Your task to perform on an android device: Open Google Chrome and click the shortcut for Amazon.com Image 0: 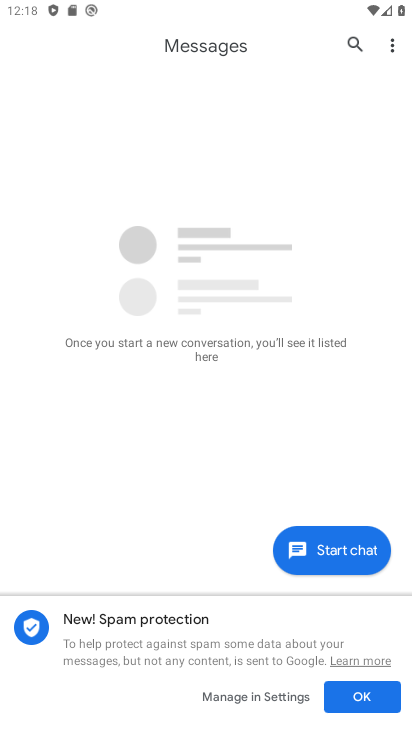
Step 0: press home button
Your task to perform on an android device: Open Google Chrome and click the shortcut for Amazon.com Image 1: 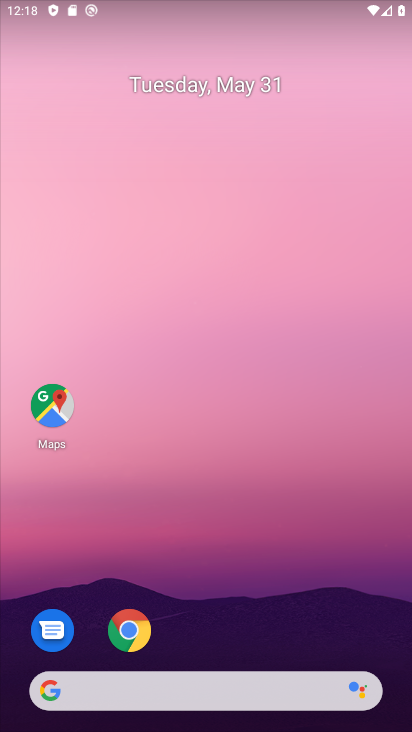
Step 1: click (133, 635)
Your task to perform on an android device: Open Google Chrome and click the shortcut for Amazon.com Image 2: 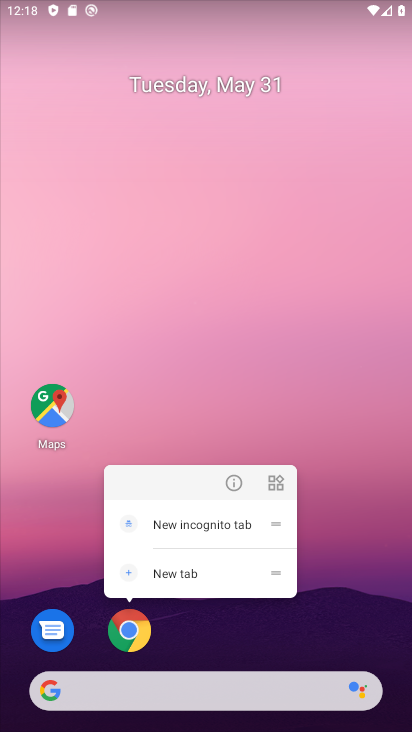
Step 2: click (128, 630)
Your task to perform on an android device: Open Google Chrome and click the shortcut for Amazon.com Image 3: 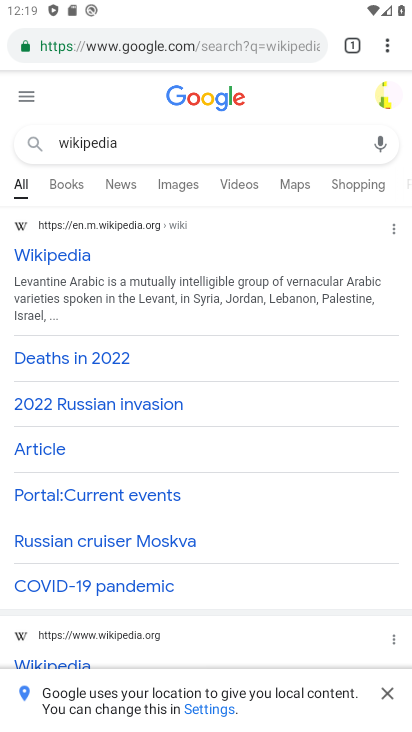
Step 3: click (127, 41)
Your task to perform on an android device: Open Google Chrome and click the shortcut for Amazon.com Image 4: 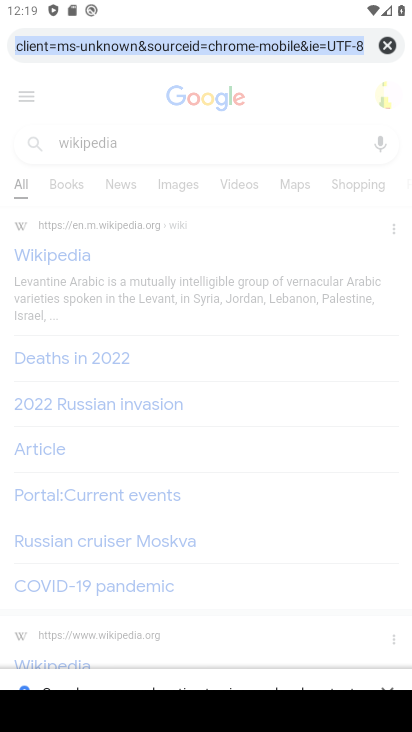
Step 4: type "Amazon.com"
Your task to perform on an android device: Open Google Chrome and click the shortcut for Amazon.com Image 5: 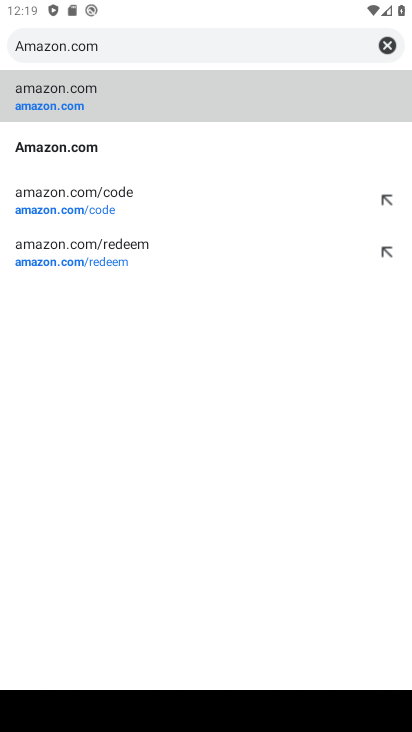
Step 5: click (57, 96)
Your task to perform on an android device: Open Google Chrome and click the shortcut for Amazon.com Image 6: 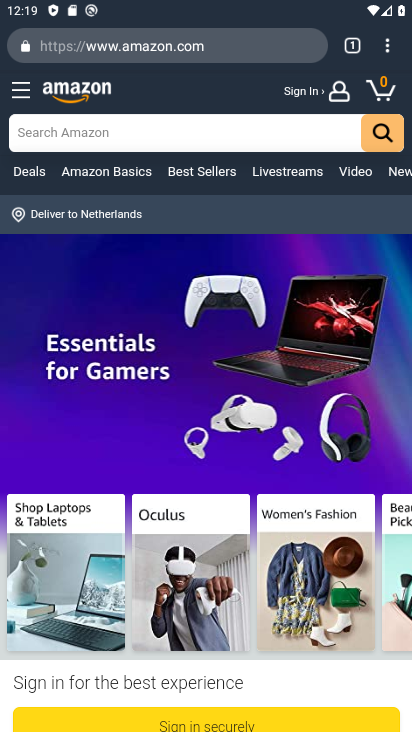
Step 6: click (390, 51)
Your task to perform on an android device: Open Google Chrome and click the shortcut for Amazon.com Image 7: 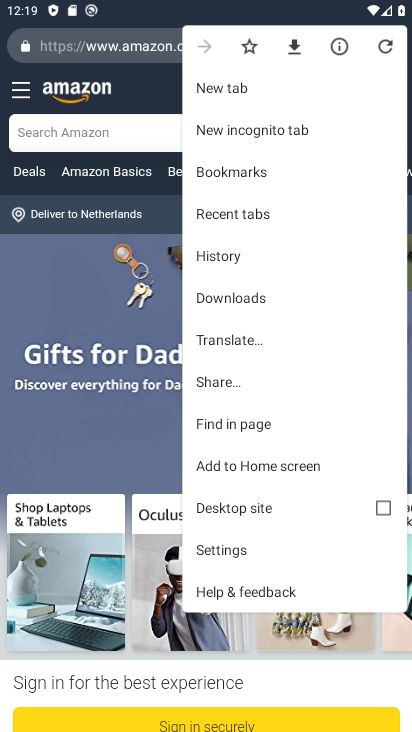
Step 7: click (256, 44)
Your task to perform on an android device: Open Google Chrome and click the shortcut for Amazon.com Image 8: 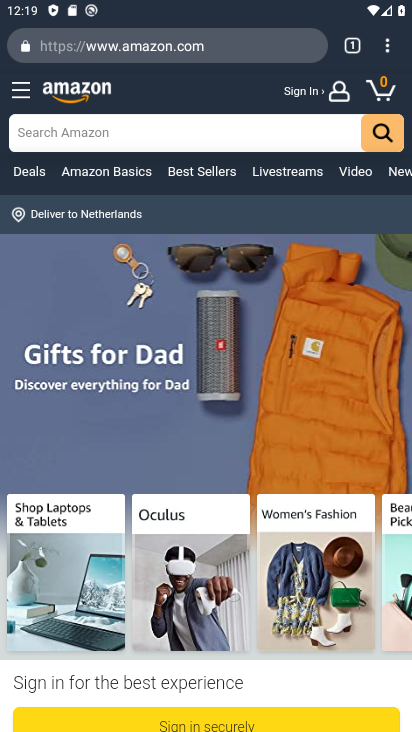
Step 8: task complete